Your task to perform on an android device: change notification settings in the gmail app Image 0: 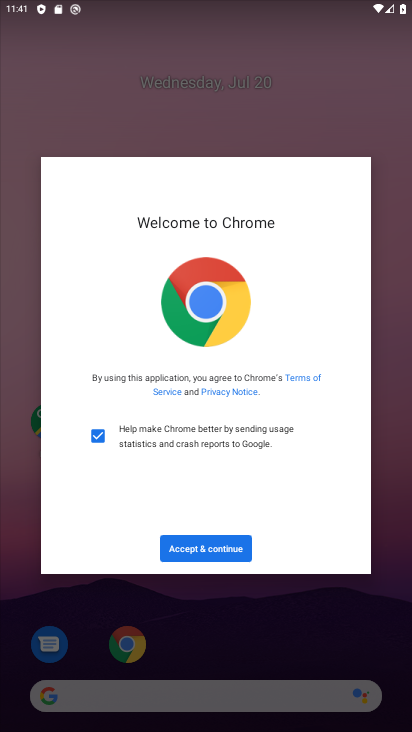
Step 0: press home button
Your task to perform on an android device: change notification settings in the gmail app Image 1: 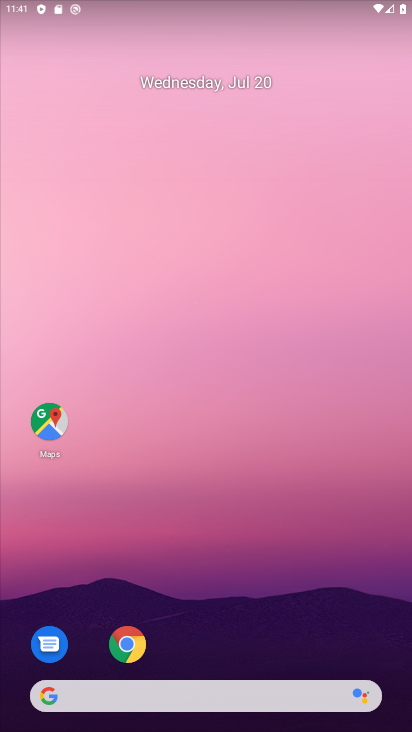
Step 1: drag from (373, 642) to (290, 5)
Your task to perform on an android device: change notification settings in the gmail app Image 2: 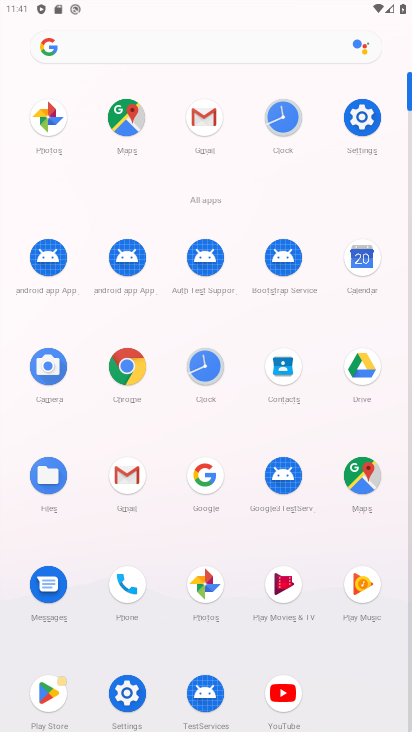
Step 2: click (126, 470)
Your task to perform on an android device: change notification settings in the gmail app Image 3: 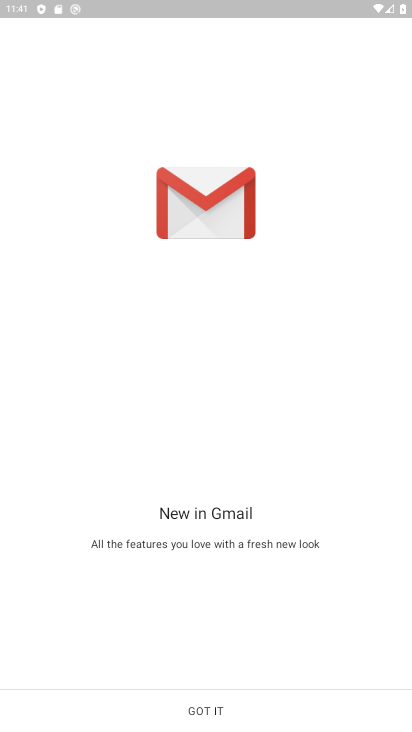
Step 3: click (209, 703)
Your task to perform on an android device: change notification settings in the gmail app Image 4: 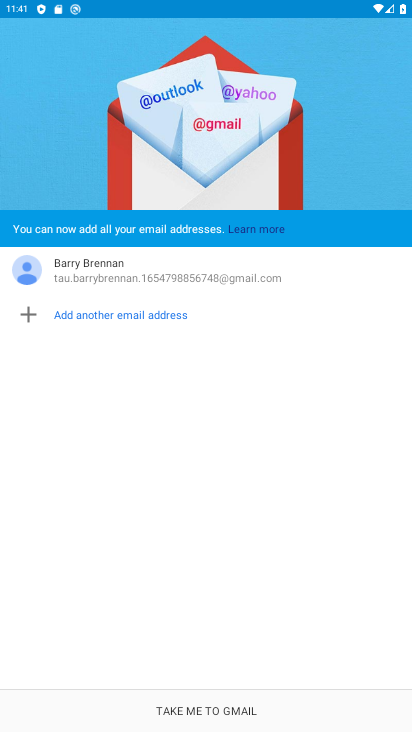
Step 4: click (217, 707)
Your task to perform on an android device: change notification settings in the gmail app Image 5: 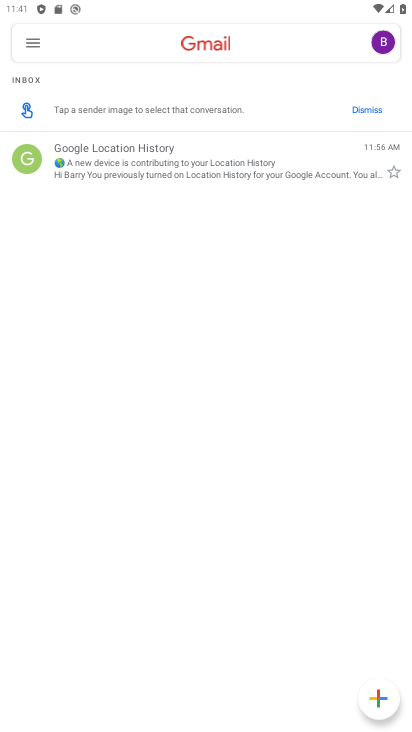
Step 5: click (30, 45)
Your task to perform on an android device: change notification settings in the gmail app Image 6: 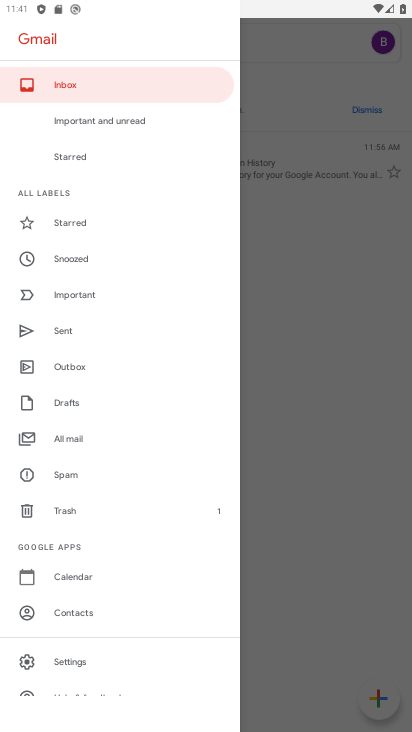
Step 6: drag from (126, 654) to (143, 260)
Your task to perform on an android device: change notification settings in the gmail app Image 7: 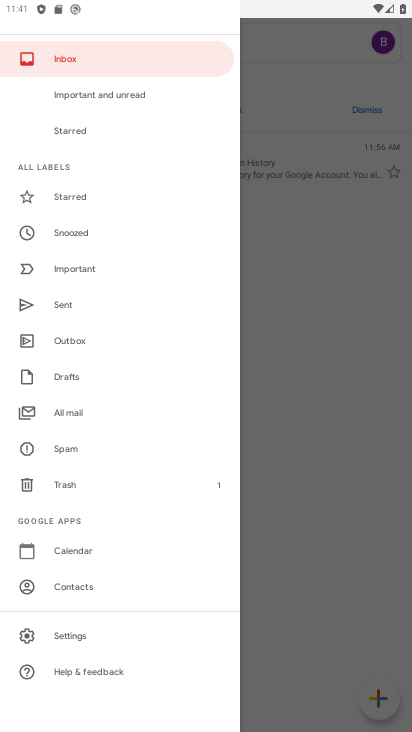
Step 7: click (62, 629)
Your task to perform on an android device: change notification settings in the gmail app Image 8: 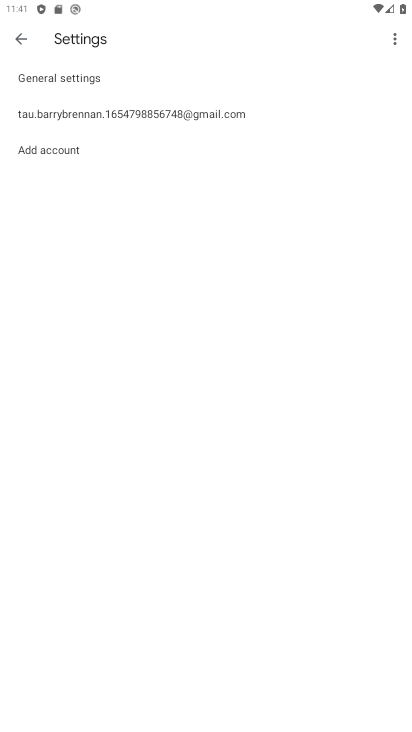
Step 8: click (98, 109)
Your task to perform on an android device: change notification settings in the gmail app Image 9: 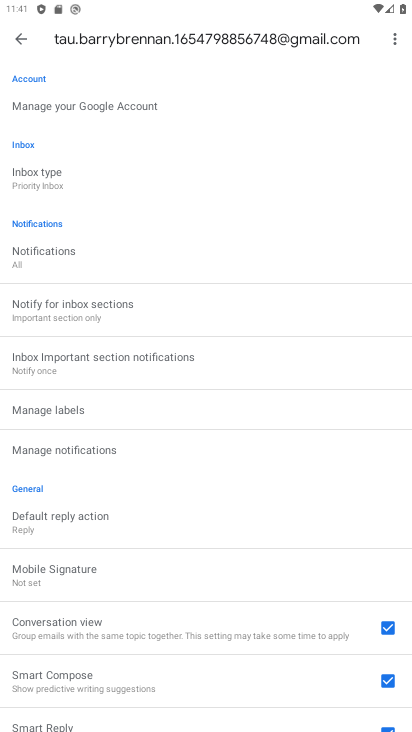
Step 9: click (60, 441)
Your task to perform on an android device: change notification settings in the gmail app Image 10: 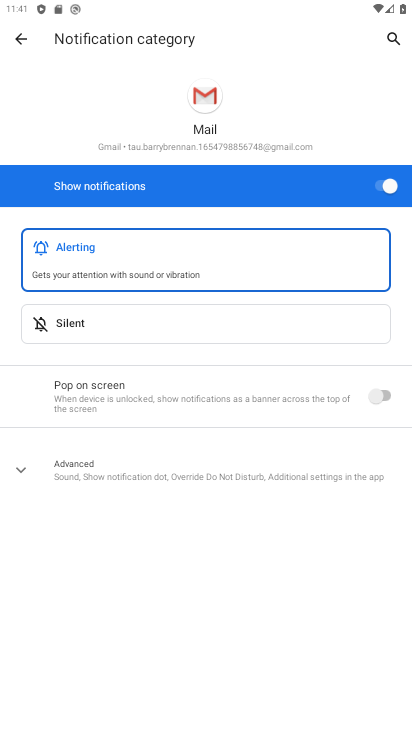
Step 10: click (378, 184)
Your task to perform on an android device: change notification settings in the gmail app Image 11: 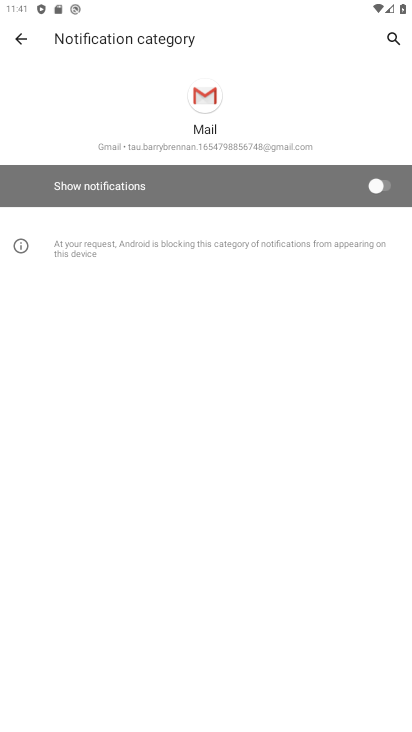
Step 11: task complete